Your task to perform on an android device: open chrome and create a bookmark for the current page Image 0: 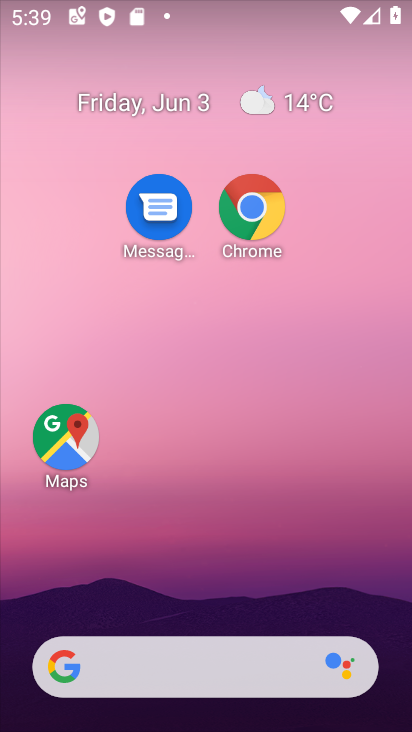
Step 0: click (252, 228)
Your task to perform on an android device: open chrome and create a bookmark for the current page Image 1: 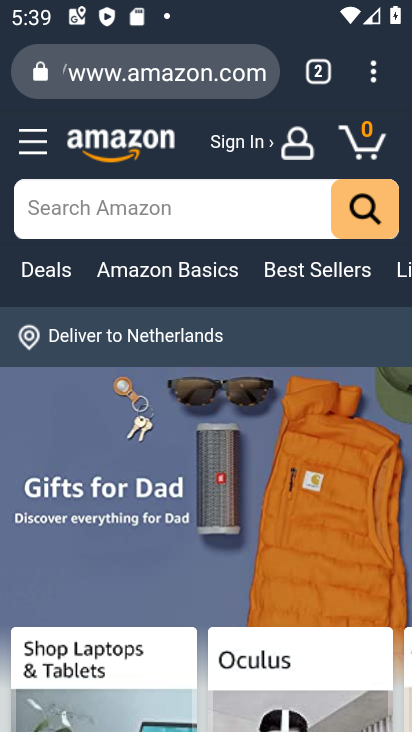
Step 1: click (374, 70)
Your task to perform on an android device: open chrome and create a bookmark for the current page Image 2: 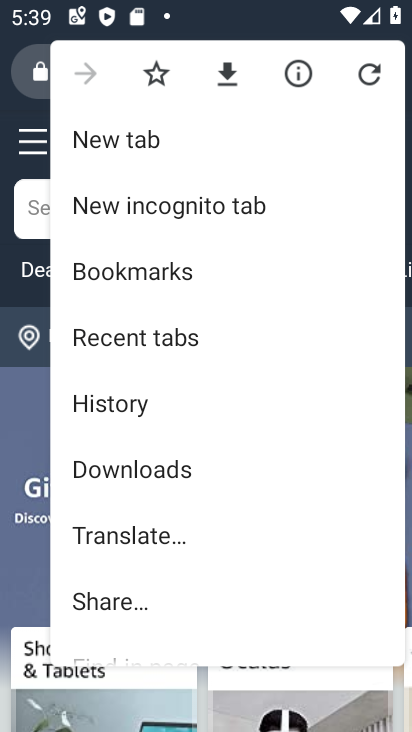
Step 2: click (148, 77)
Your task to perform on an android device: open chrome and create a bookmark for the current page Image 3: 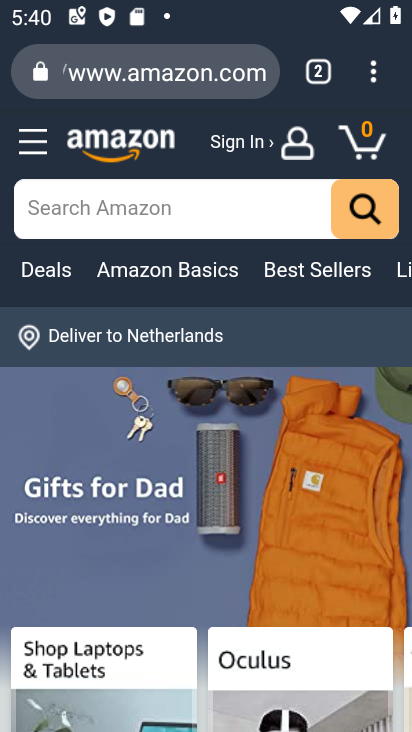
Step 3: task complete